Your task to perform on an android device: toggle priority inbox in the gmail app Image 0: 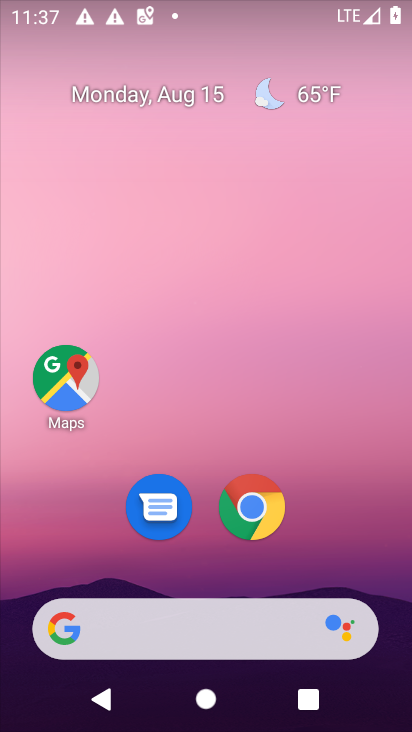
Step 0: drag from (194, 558) to (172, 154)
Your task to perform on an android device: toggle priority inbox in the gmail app Image 1: 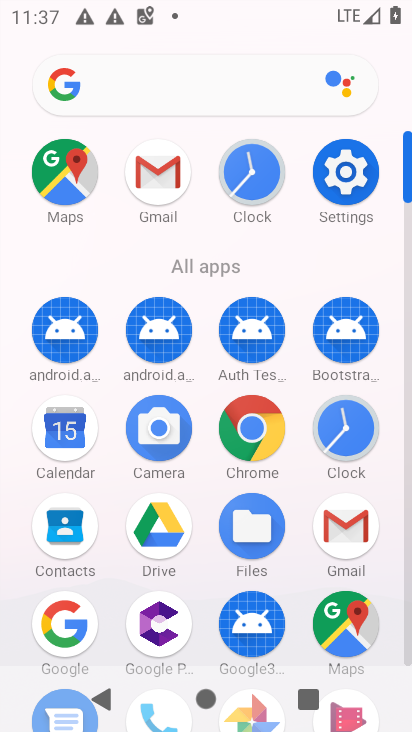
Step 1: click (154, 187)
Your task to perform on an android device: toggle priority inbox in the gmail app Image 2: 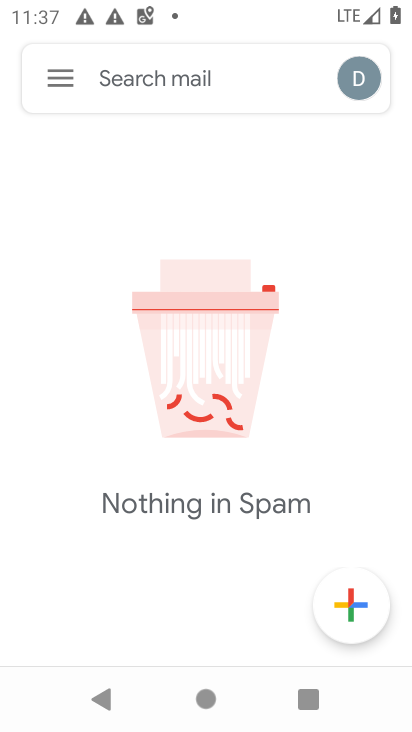
Step 2: click (57, 84)
Your task to perform on an android device: toggle priority inbox in the gmail app Image 3: 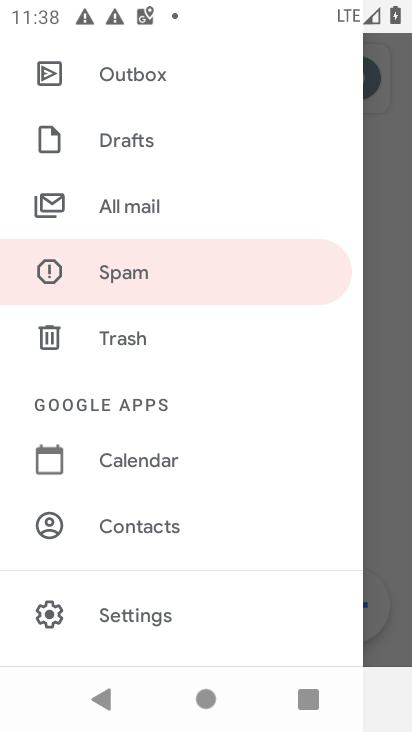
Step 3: click (144, 618)
Your task to perform on an android device: toggle priority inbox in the gmail app Image 4: 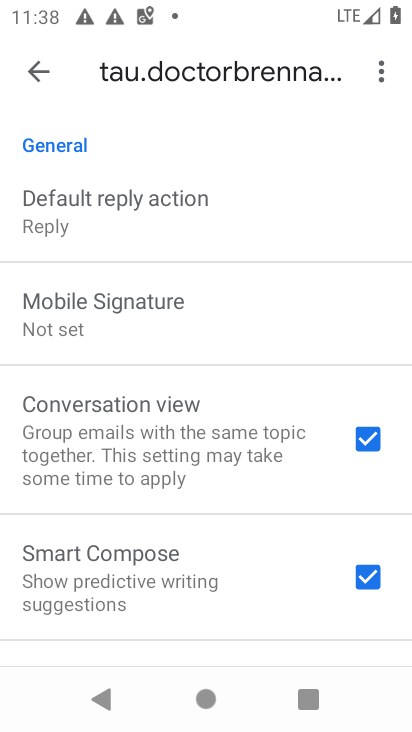
Step 4: drag from (208, 222) to (199, 695)
Your task to perform on an android device: toggle priority inbox in the gmail app Image 5: 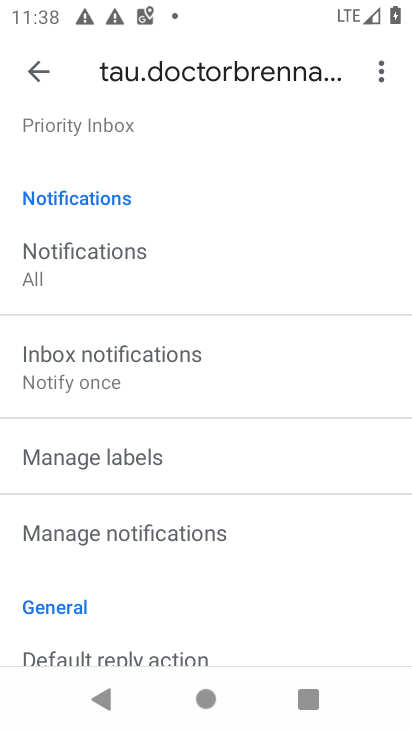
Step 5: drag from (207, 173) to (217, 378)
Your task to perform on an android device: toggle priority inbox in the gmail app Image 6: 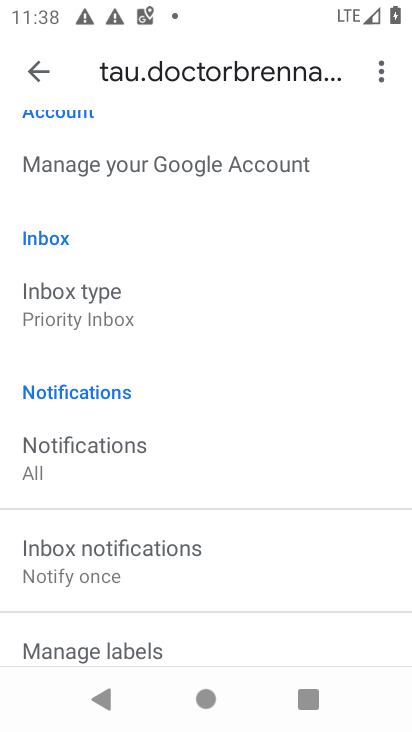
Step 6: click (61, 299)
Your task to perform on an android device: toggle priority inbox in the gmail app Image 7: 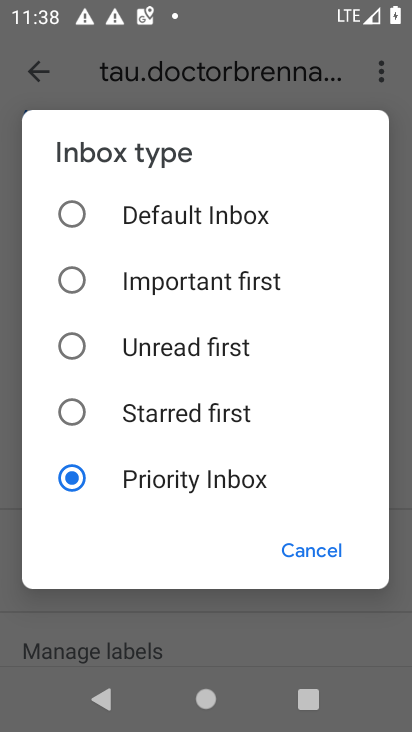
Step 7: click (71, 217)
Your task to perform on an android device: toggle priority inbox in the gmail app Image 8: 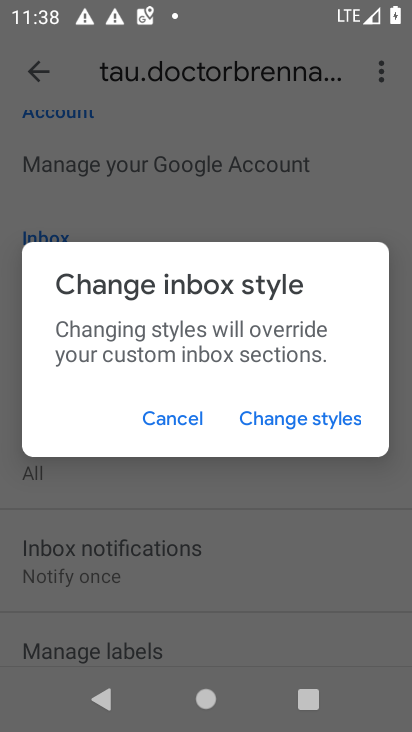
Step 8: click (190, 413)
Your task to perform on an android device: toggle priority inbox in the gmail app Image 9: 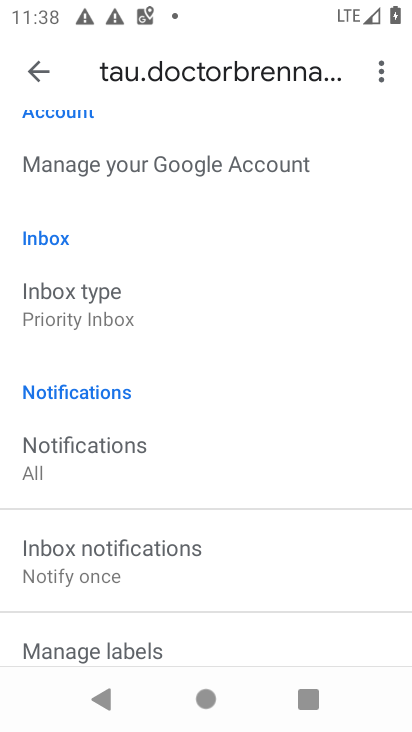
Step 9: task complete